Your task to perform on an android device: Is it going to rain tomorrow? Image 0: 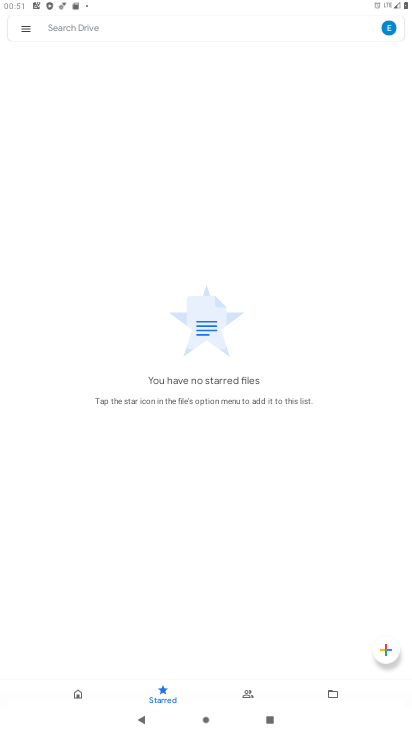
Step 0: drag from (43, 714) to (279, 55)
Your task to perform on an android device: Is it going to rain tomorrow? Image 1: 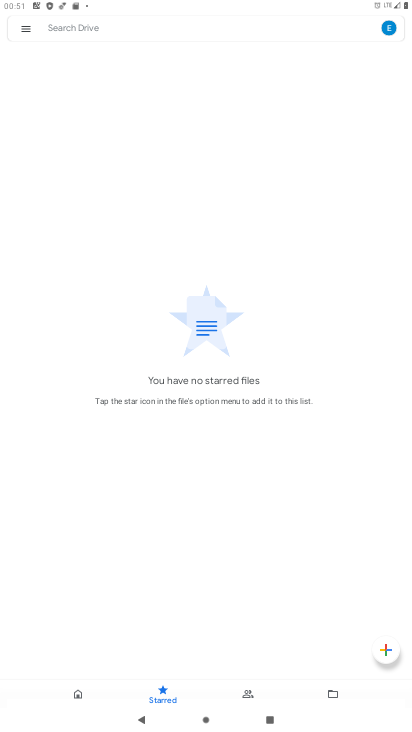
Step 1: press home button
Your task to perform on an android device: Is it going to rain tomorrow? Image 2: 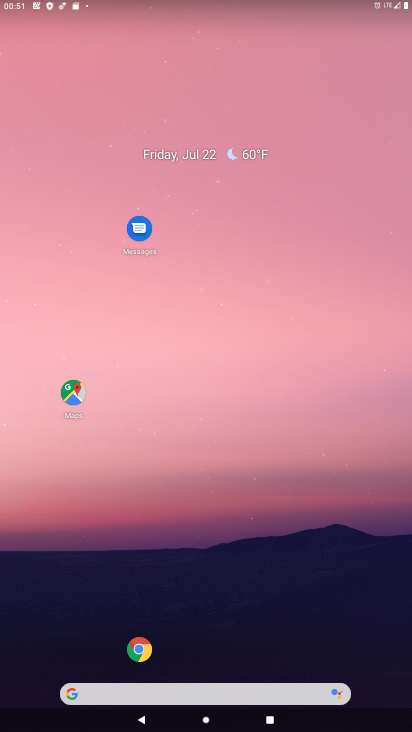
Step 2: click (92, 701)
Your task to perform on an android device: Is it going to rain tomorrow? Image 3: 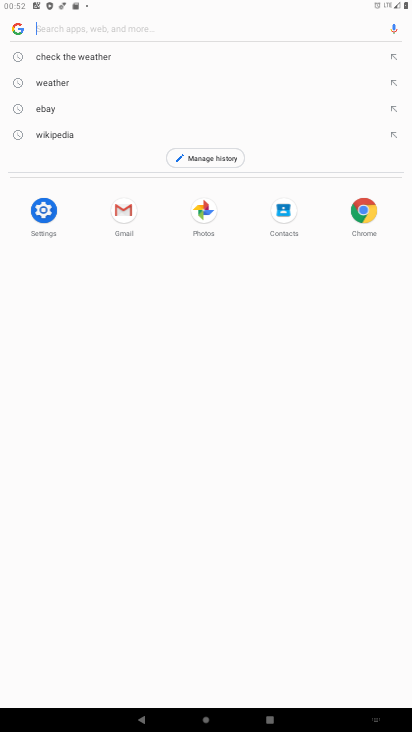
Step 3: type "Is it going to rain tomorrow?"
Your task to perform on an android device: Is it going to rain tomorrow? Image 4: 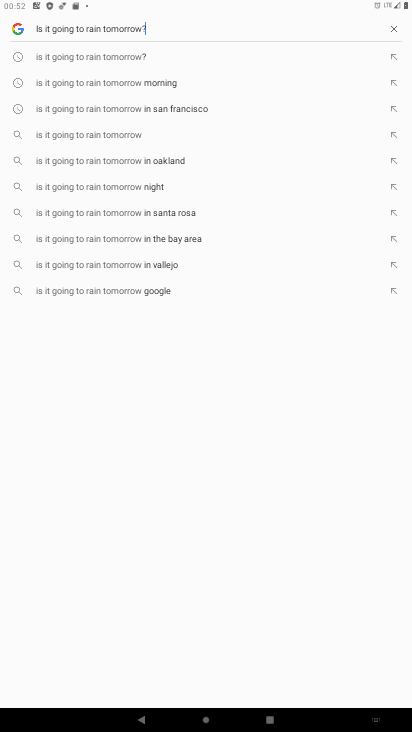
Step 4: type ""
Your task to perform on an android device: Is it going to rain tomorrow? Image 5: 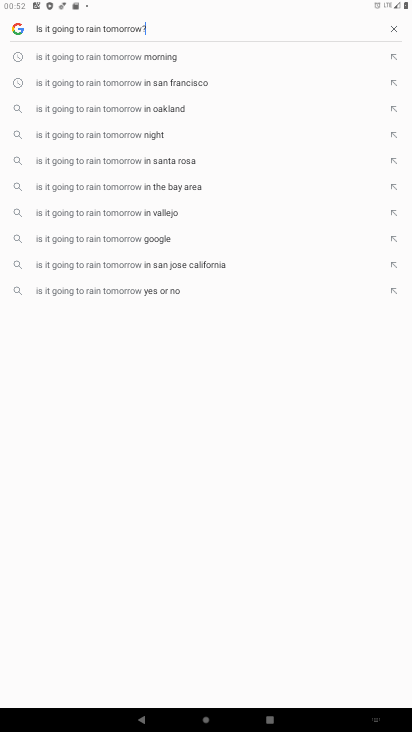
Step 5: type ""
Your task to perform on an android device: Is it going to rain tomorrow? Image 6: 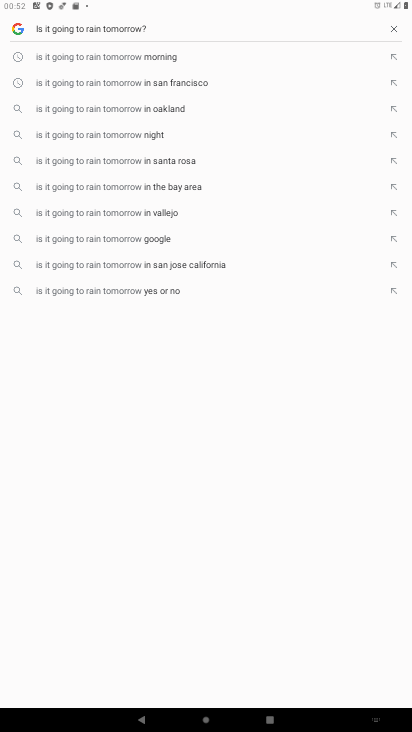
Step 6: type ""
Your task to perform on an android device: Is it going to rain tomorrow? Image 7: 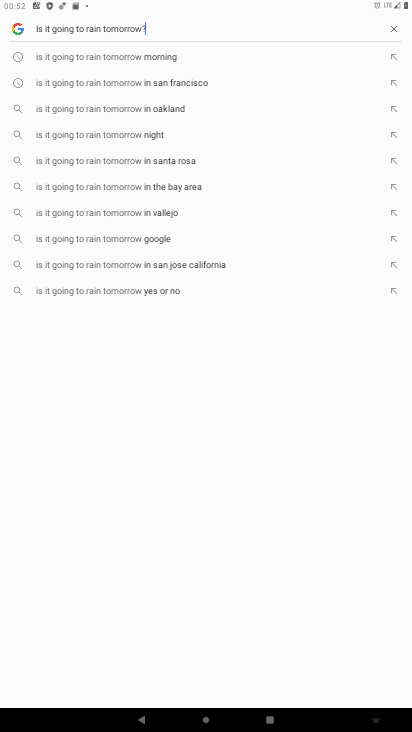
Step 7: type ""
Your task to perform on an android device: Is it going to rain tomorrow? Image 8: 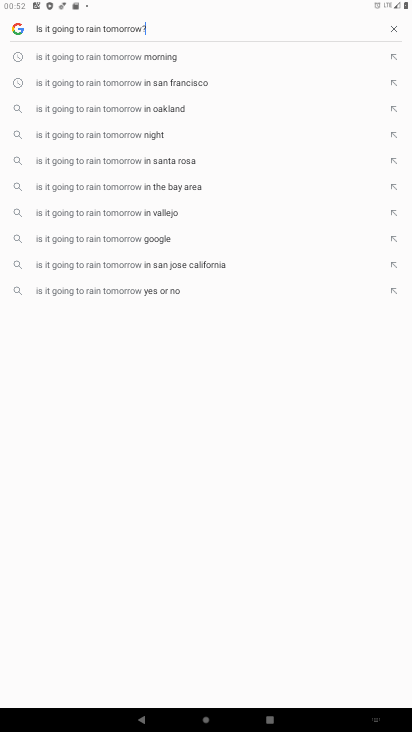
Step 8: task complete